Your task to perform on an android device: open chrome and create a bookmark for the current page Image 0: 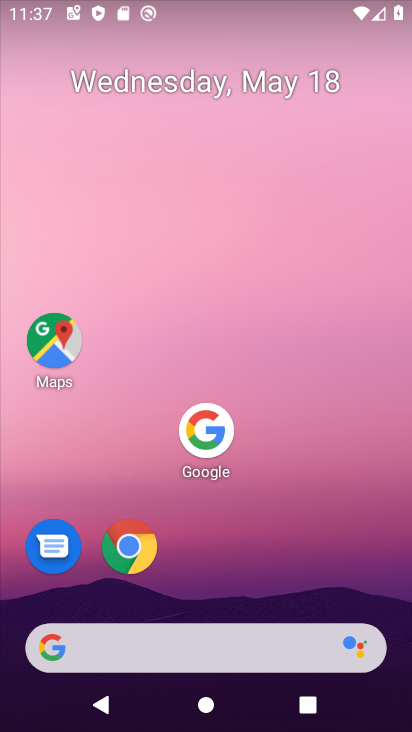
Step 0: click (131, 541)
Your task to perform on an android device: open chrome and create a bookmark for the current page Image 1: 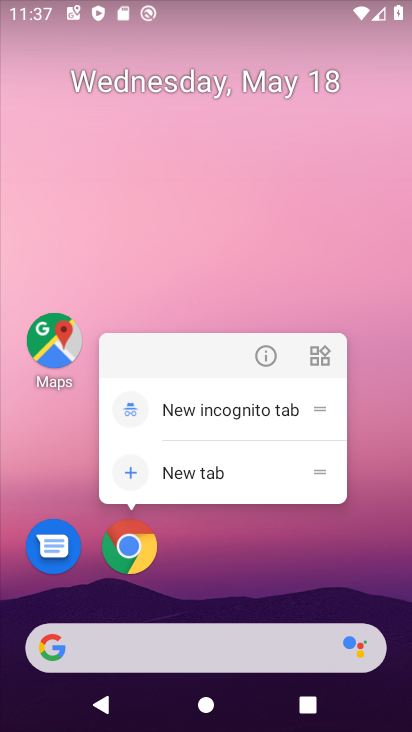
Step 1: click (131, 542)
Your task to perform on an android device: open chrome and create a bookmark for the current page Image 2: 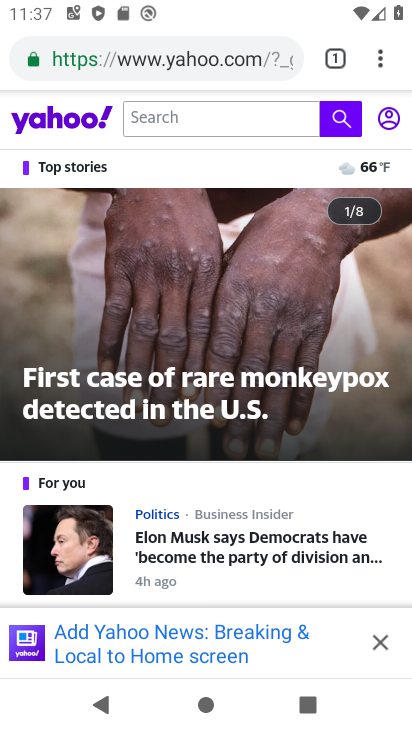
Step 2: click (376, 51)
Your task to perform on an android device: open chrome and create a bookmark for the current page Image 3: 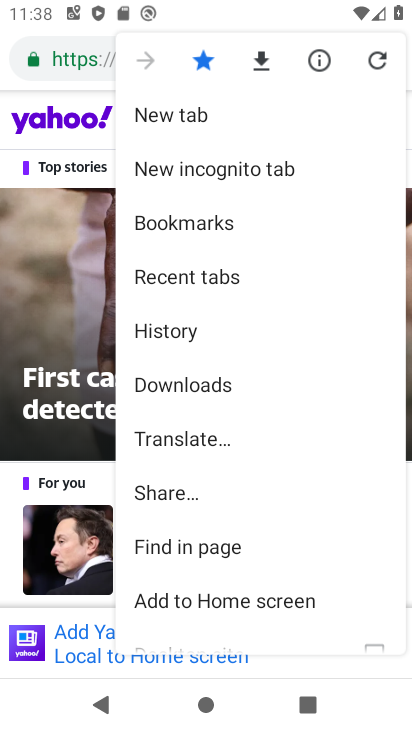
Step 3: task complete